Your task to perform on an android device: Play the last video I watched on Youtube Image 0: 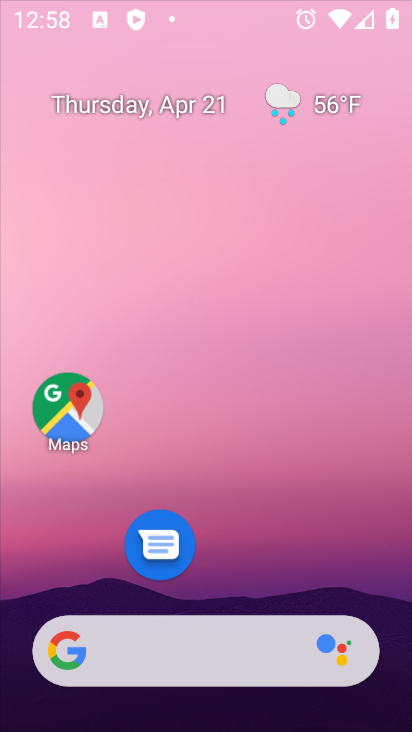
Step 0: click (257, 314)
Your task to perform on an android device: Play the last video I watched on Youtube Image 1: 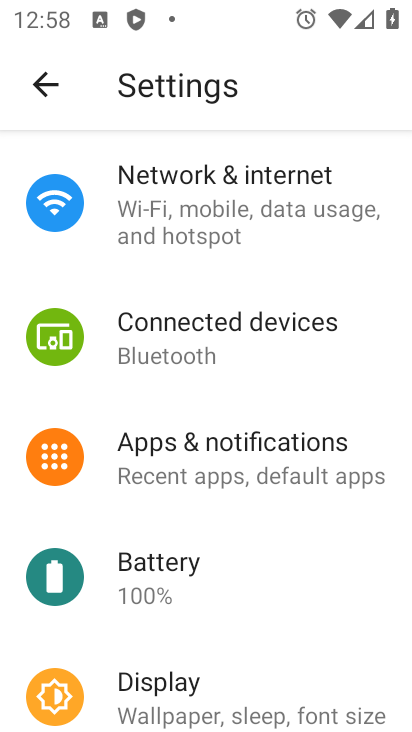
Step 1: press home button
Your task to perform on an android device: Play the last video I watched on Youtube Image 2: 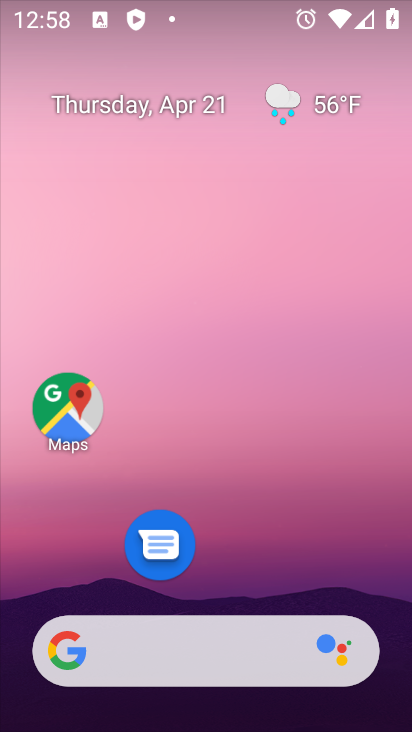
Step 2: drag from (191, 597) to (215, 273)
Your task to perform on an android device: Play the last video I watched on Youtube Image 3: 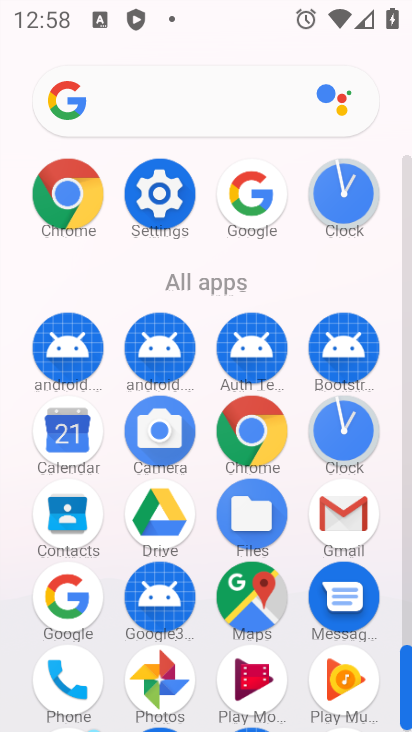
Step 3: click (251, 222)
Your task to perform on an android device: Play the last video I watched on Youtube Image 4: 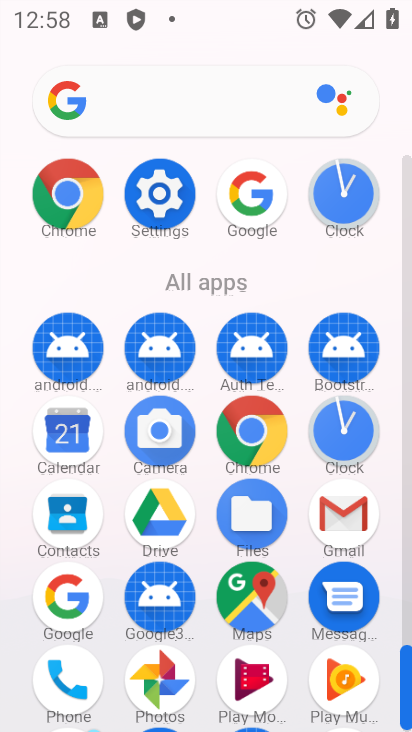
Step 4: drag from (299, 417) to (315, 259)
Your task to perform on an android device: Play the last video I watched on Youtube Image 5: 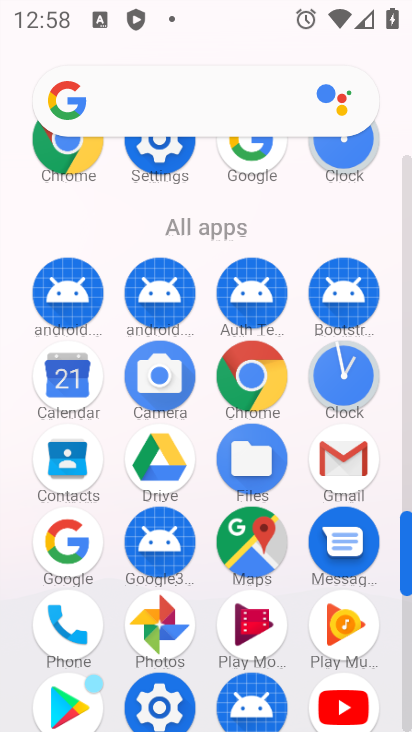
Step 5: drag from (311, 437) to (320, 223)
Your task to perform on an android device: Play the last video I watched on Youtube Image 6: 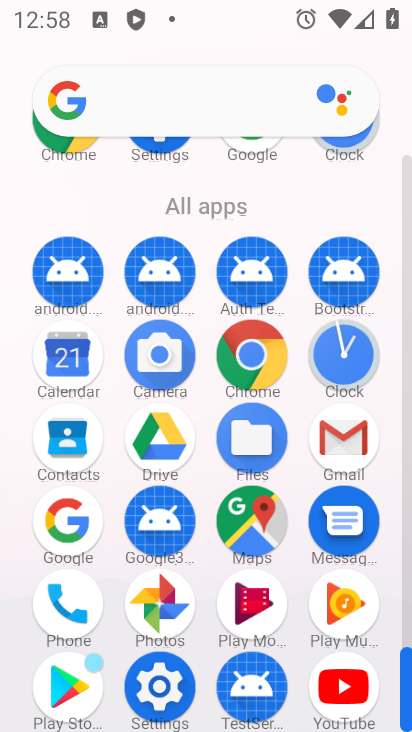
Step 6: click (352, 696)
Your task to perform on an android device: Play the last video I watched on Youtube Image 7: 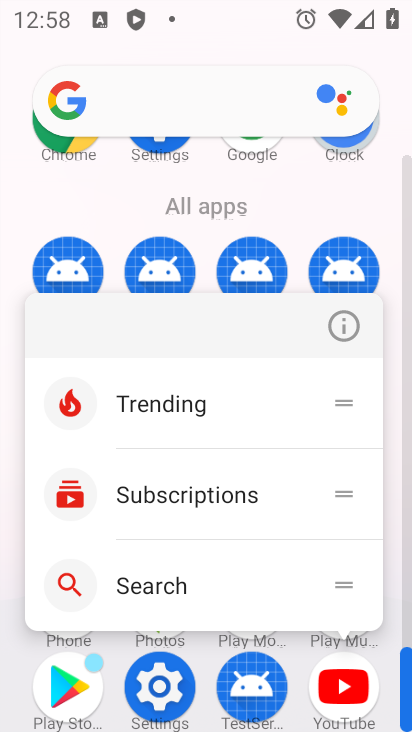
Step 7: click (352, 696)
Your task to perform on an android device: Play the last video I watched on Youtube Image 8: 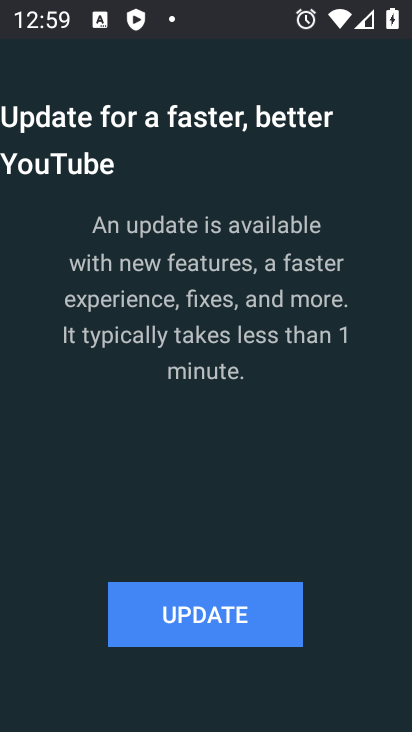
Step 8: click (279, 623)
Your task to perform on an android device: Play the last video I watched on Youtube Image 9: 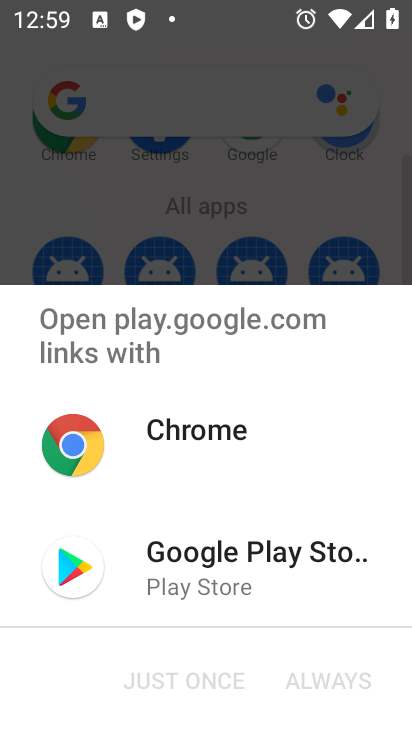
Step 9: click (260, 586)
Your task to perform on an android device: Play the last video I watched on Youtube Image 10: 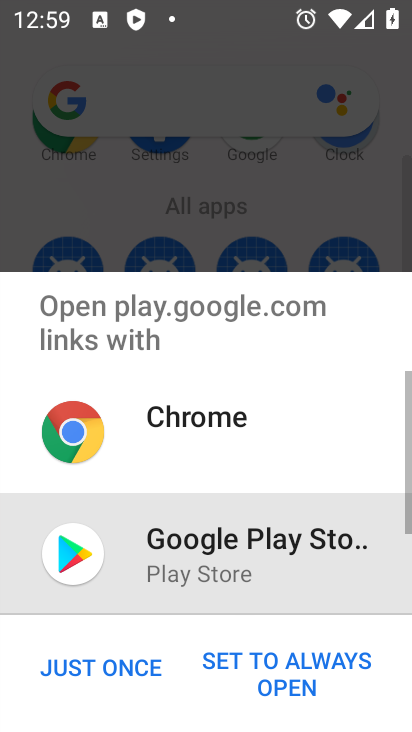
Step 10: click (129, 665)
Your task to perform on an android device: Play the last video I watched on Youtube Image 11: 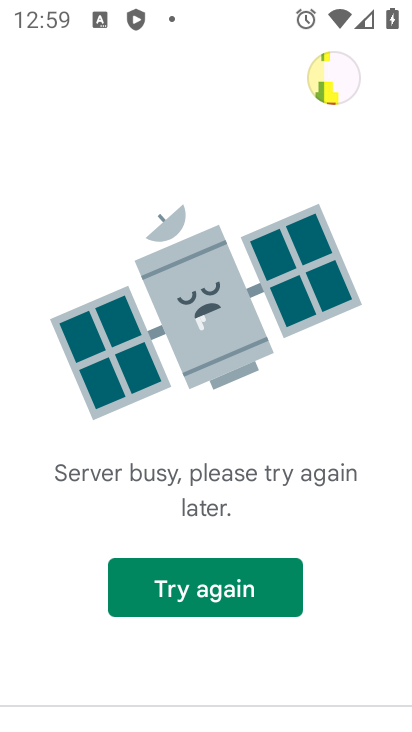
Step 11: click (244, 598)
Your task to perform on an android device: Play the last video I watched on Youtube Image 12: 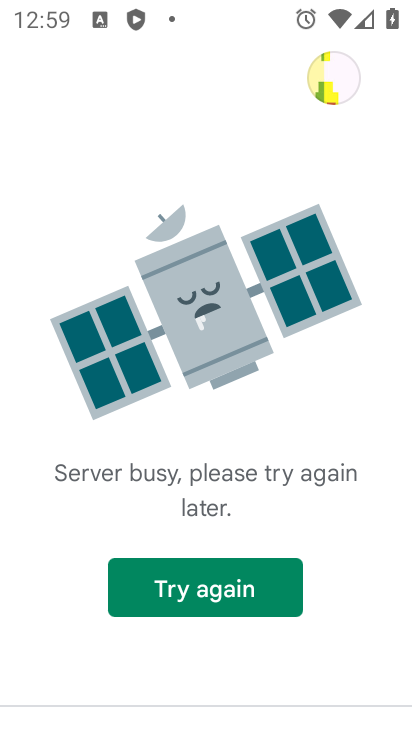
Step 12: task complete